Your task to perform on an android device: turn off airplane mode Image 0: 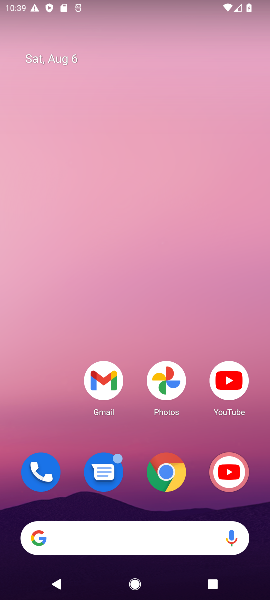
Step 0: drag from (204, 436) to (50, 73)
Your task to perform on an android device: turn off airplane mode Image 1: 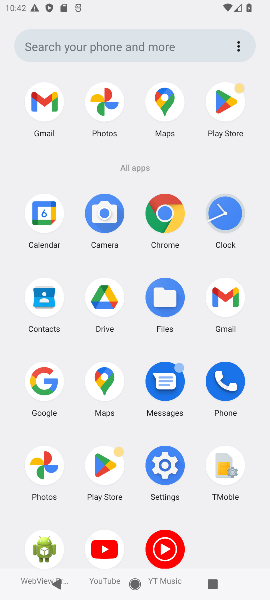
Step 1: task complete